Your task to perform on an android device: Do I have any events this weekend? Image 0: 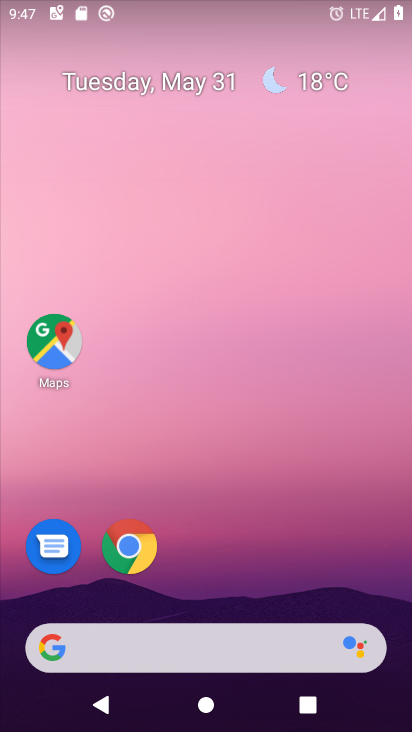
Step 0: drag from (191, 598) to (264, 0)
Your task to perform on an android device: Do I have any events this weekend? Image 1: 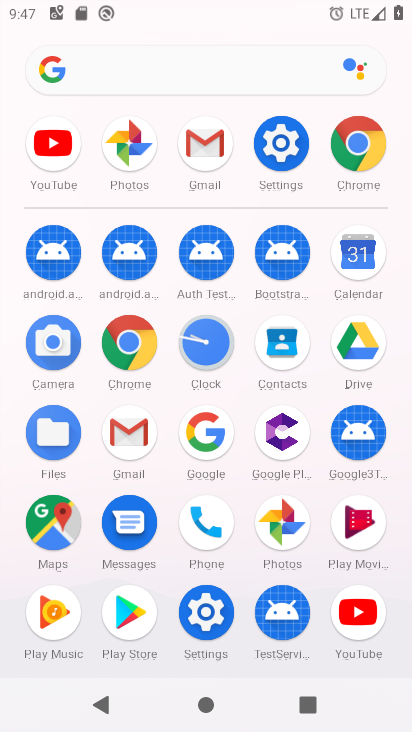
Step 1: click (357, 254)
Your task to perform on an android device: Do I have any events this weekend? Image 2: 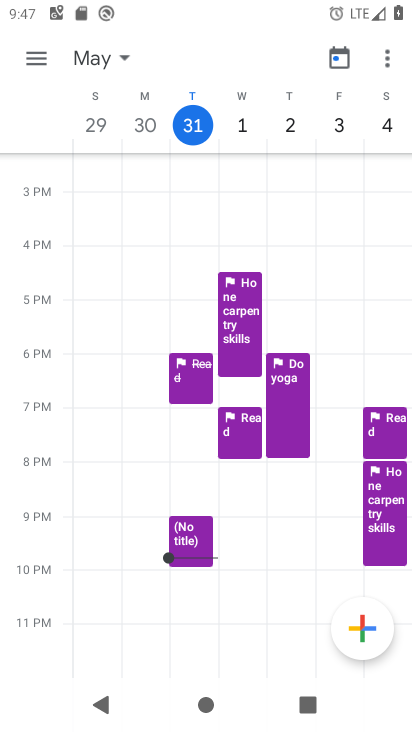
Step 2: click (29, 50)
Your task to perform on an android device: Do I have any events this weekend? Image 3: 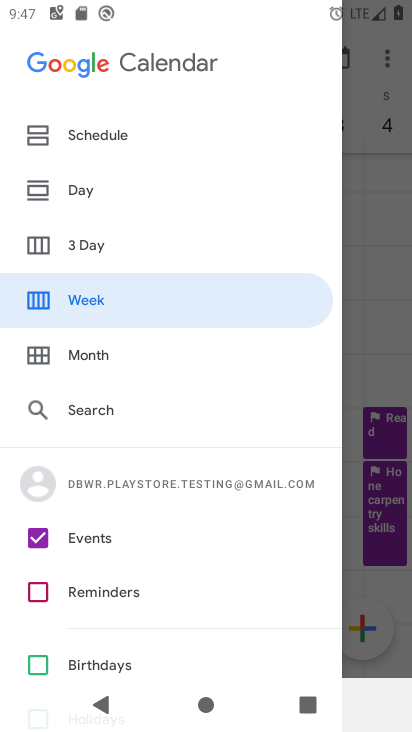
Step 3: click (132, 306)
Your task to perform on an android device: Do I have any events this weekend? Image 4: 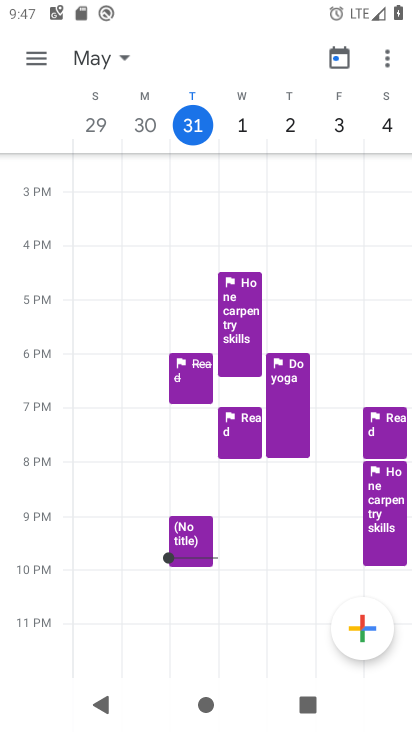
Step 4: task complete